Your task to perform on an android device: Toggle the flashlight Image 0: 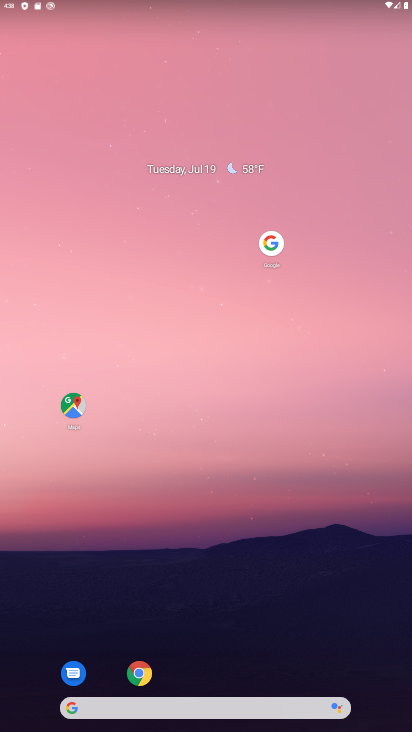
Step 0: press home button
Your task to perform on an android device: Toggle the flashlight Image 1: 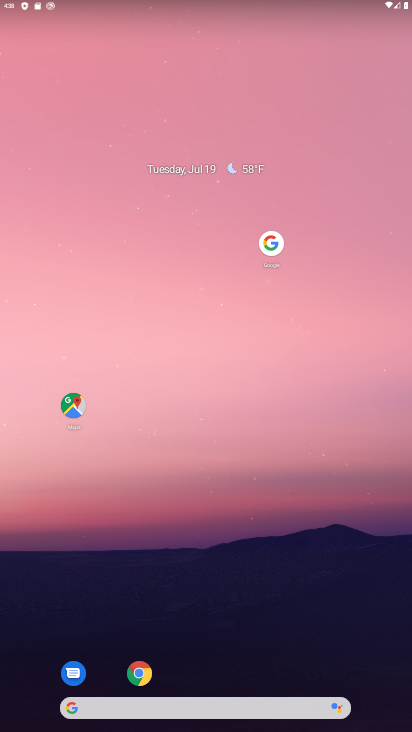
Step 1: task complete